Your task to perform on an android device: open app "AliExpress" Image 0: 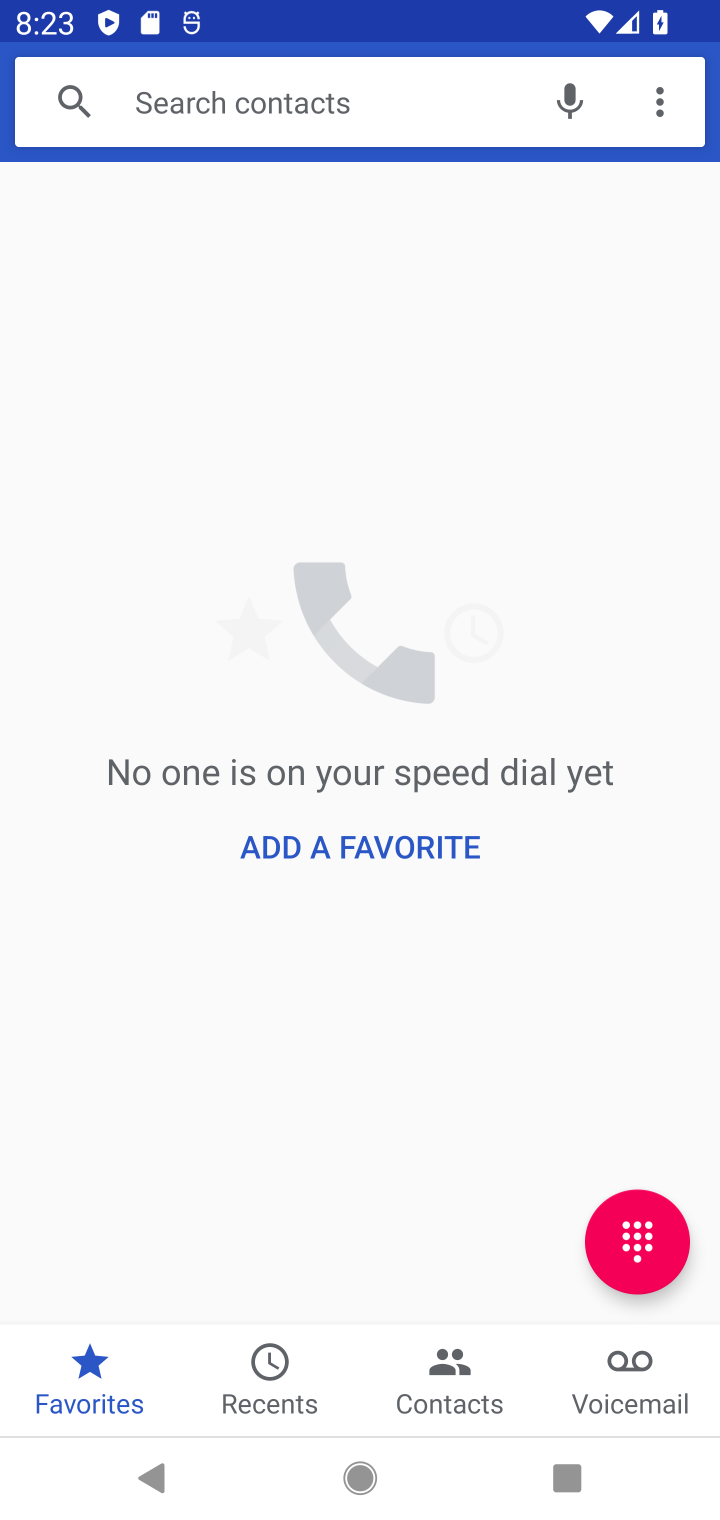
Step 0: press home button
Your task to perform on an android device: open app "AliExpress" Image 1: 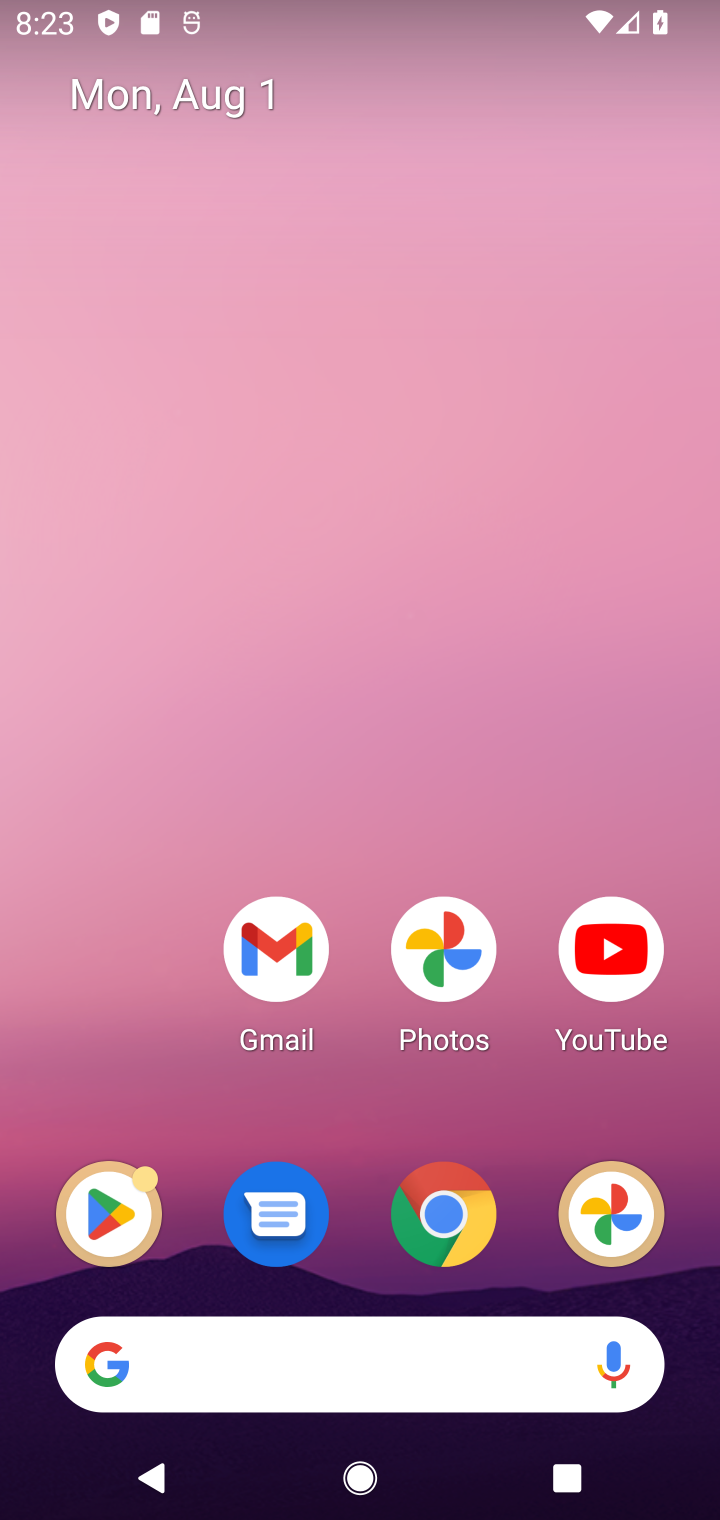
Step 1: click (95, 1203)
Your task to perform on an android device: open app "AliExpress" Image 2: 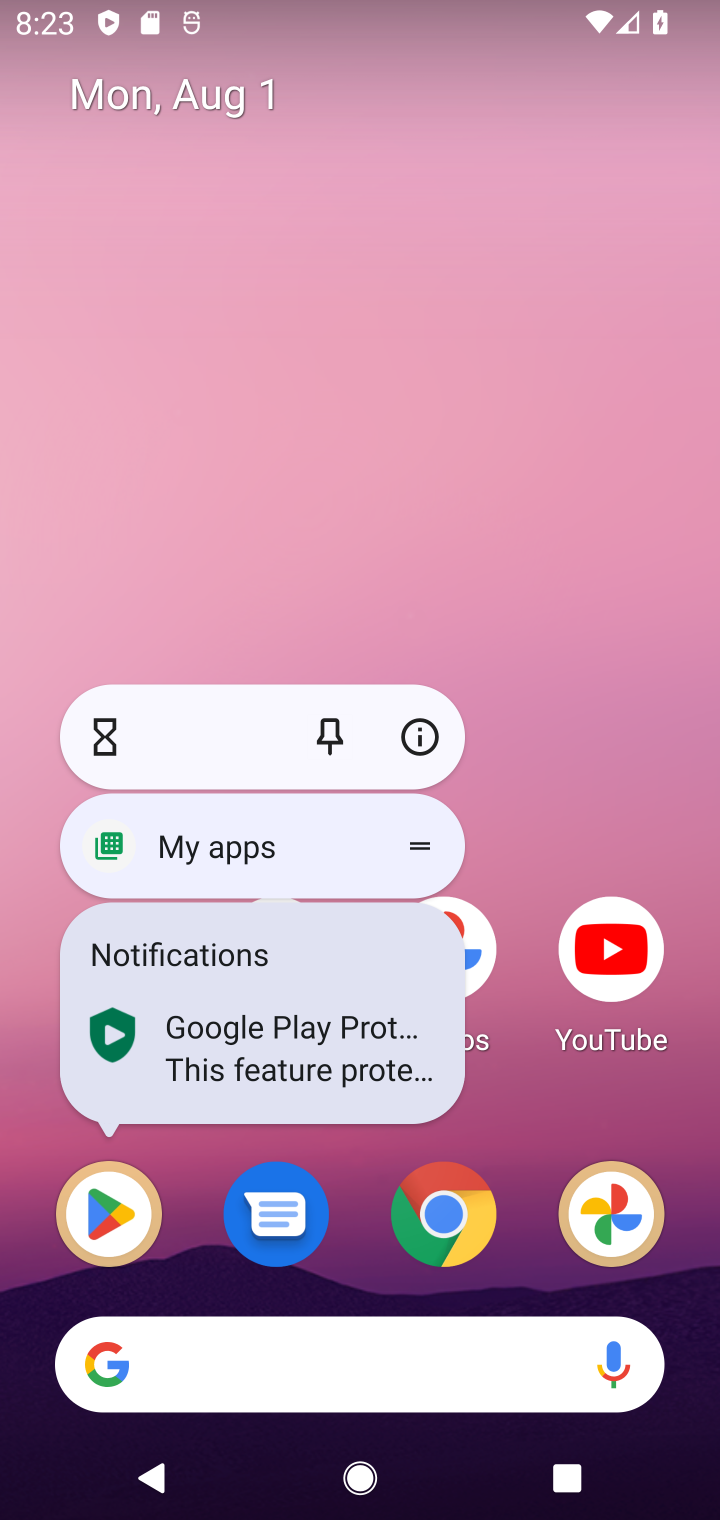
Step 2: click (116, 1220)
Your task to perform on an android device: open app "AliExpress" Image 3: 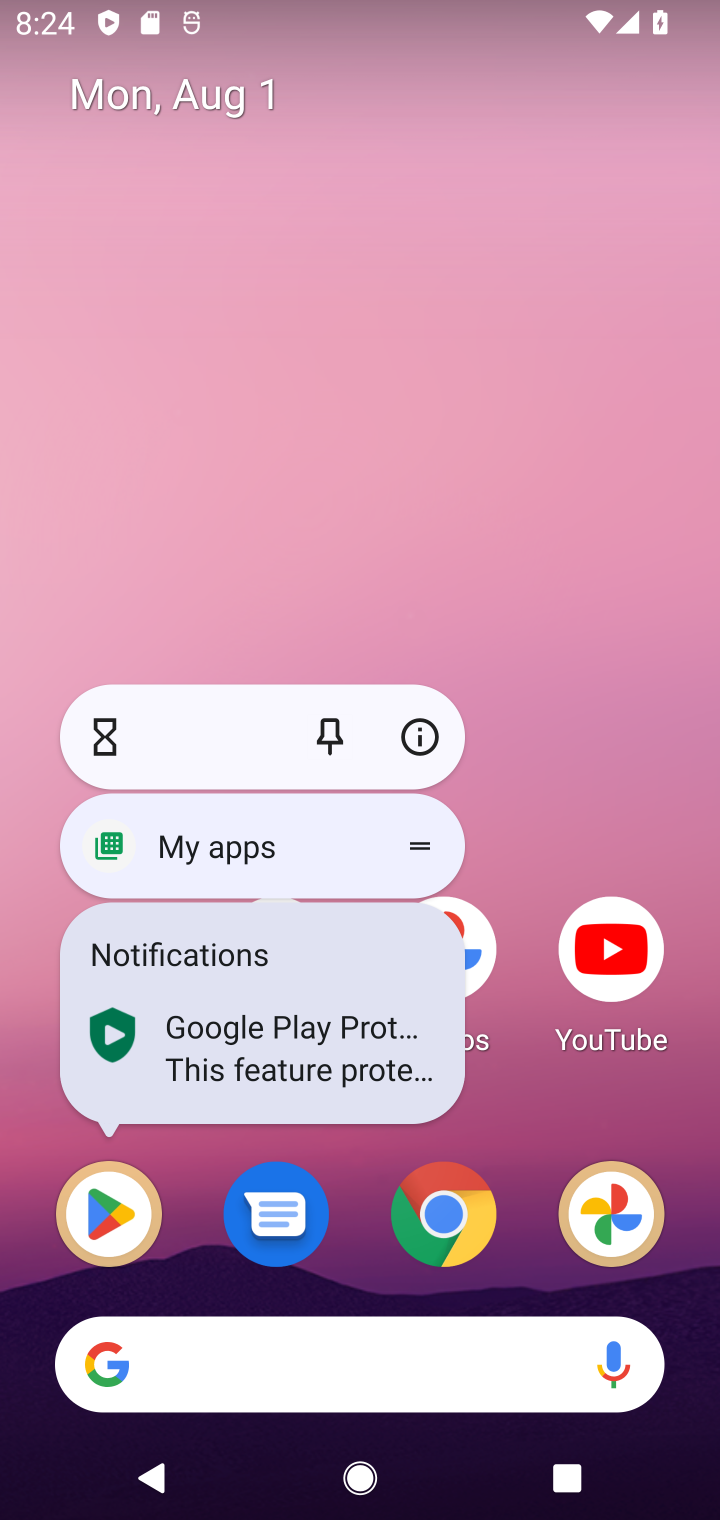
Step 3: click (94, 1231)
Your task to perform on an android device: open app "AliExpress" Image 4: 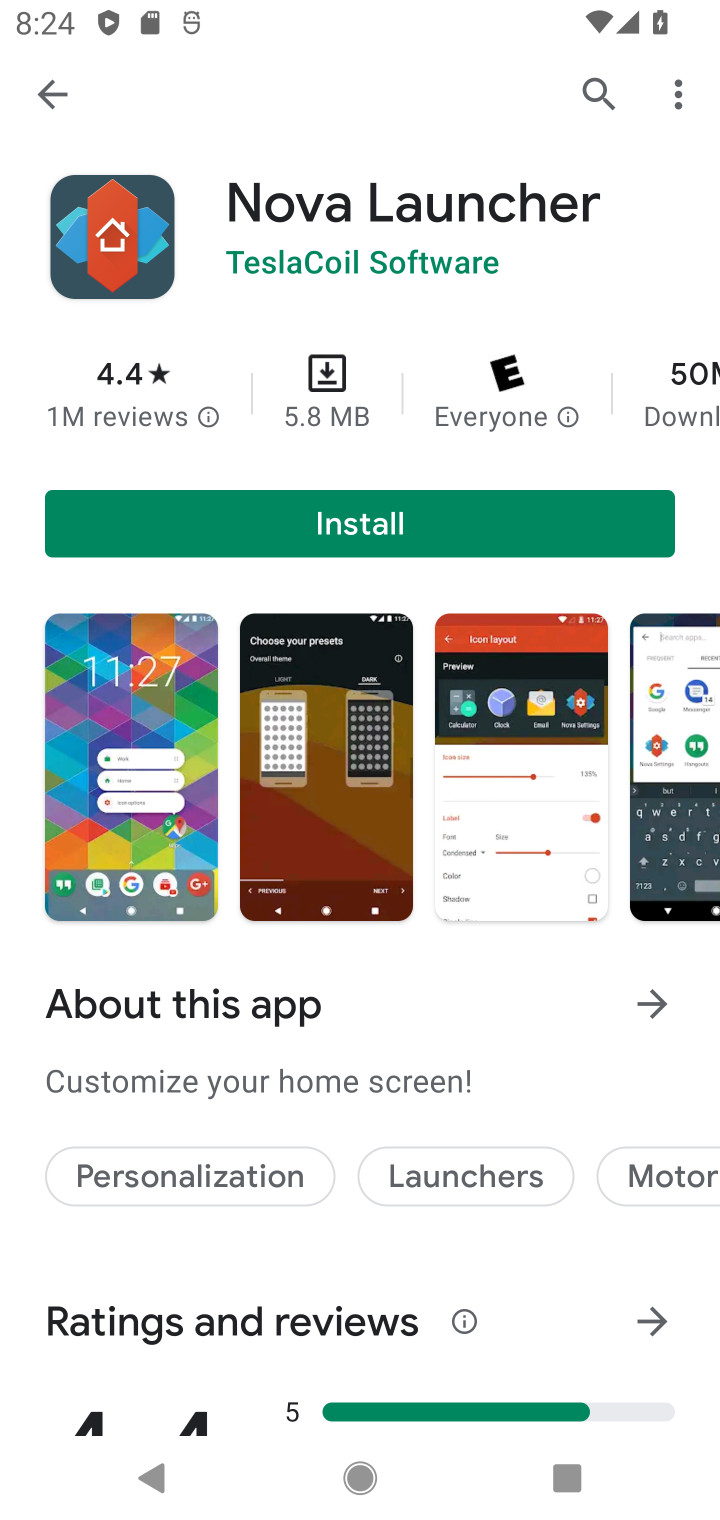
Step 4: click (587, 87)
Your task to perform on an android device: open app "AliExpress" Image 5: 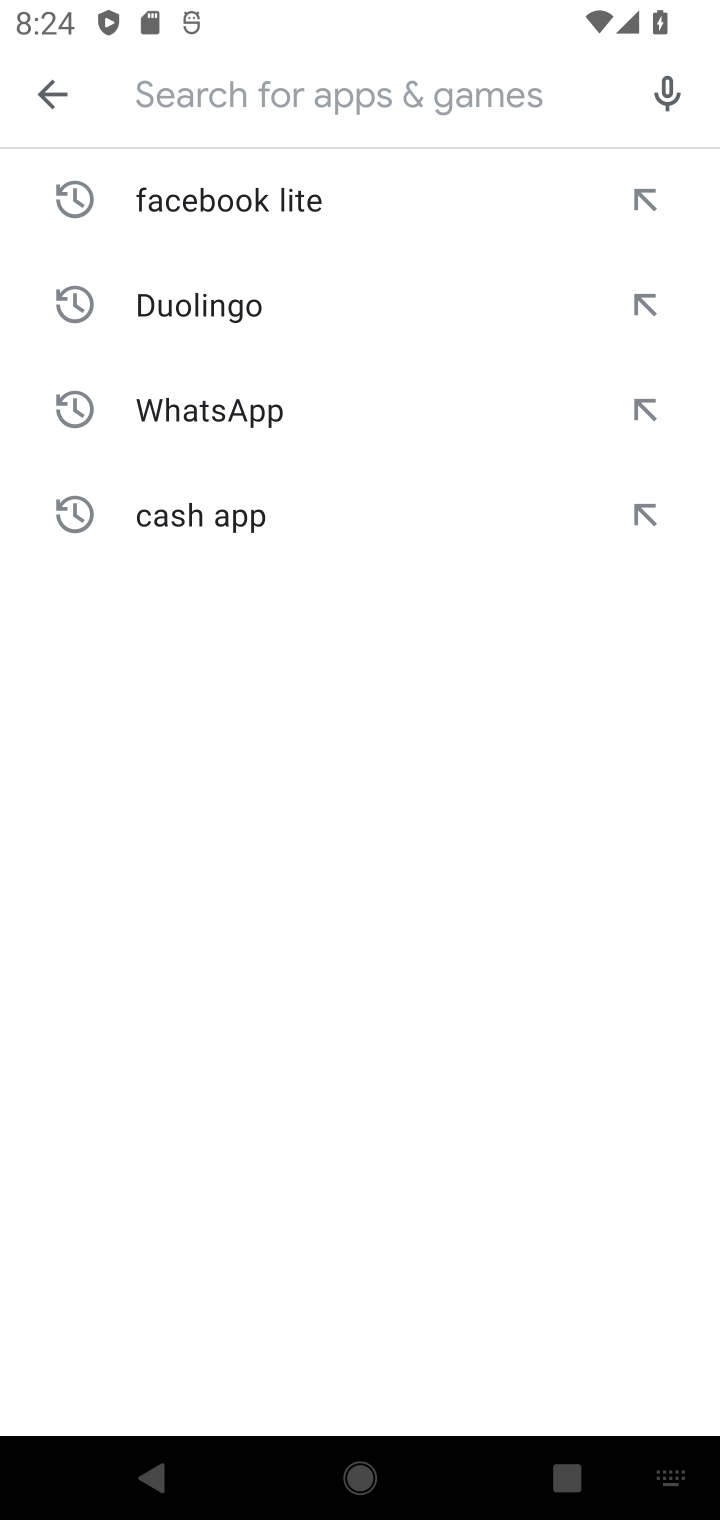
Step 5: type "aliexpress"
Your task to perform on an android device: open app "AliExpress" Image 6: 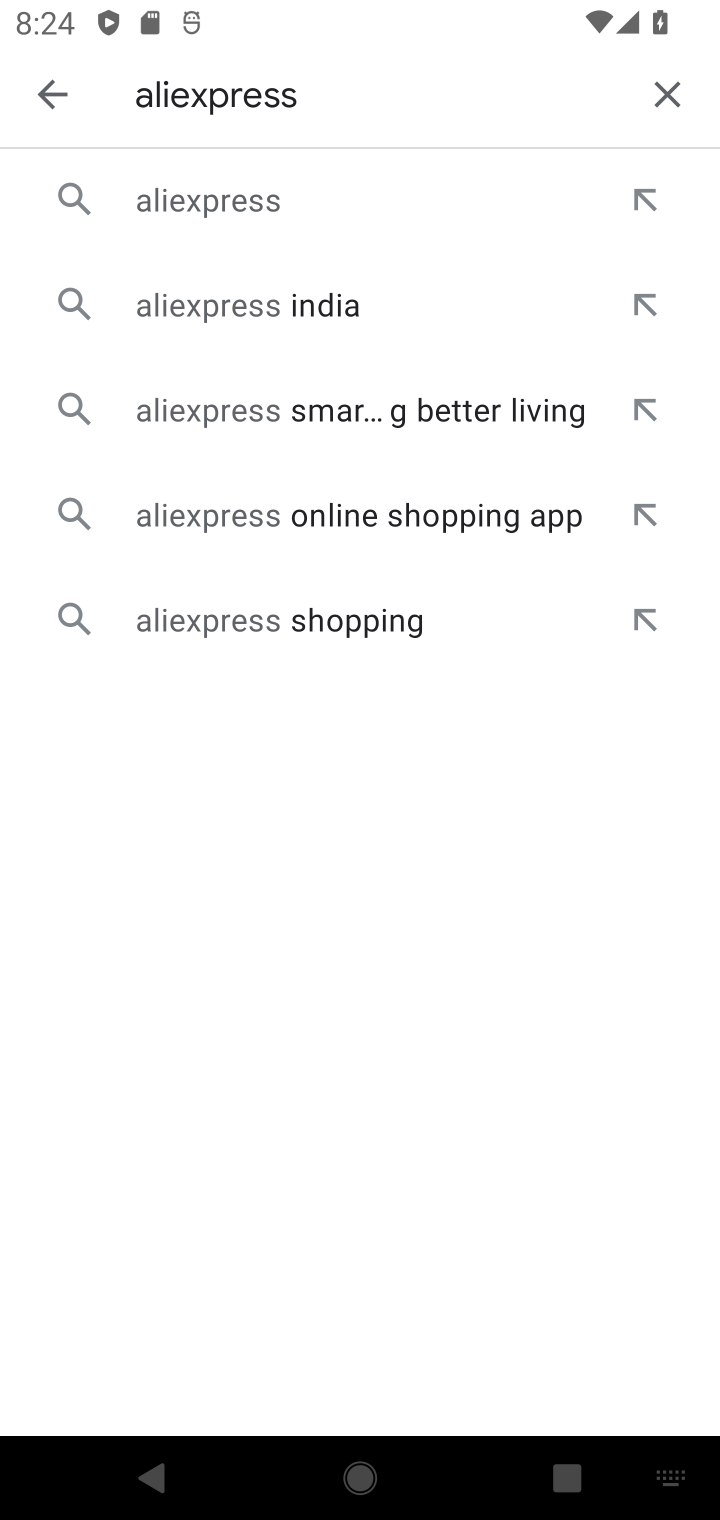
Step 6: click (258, 204)
Your task to perform on an android device: open app "AliExpress" Image 7: 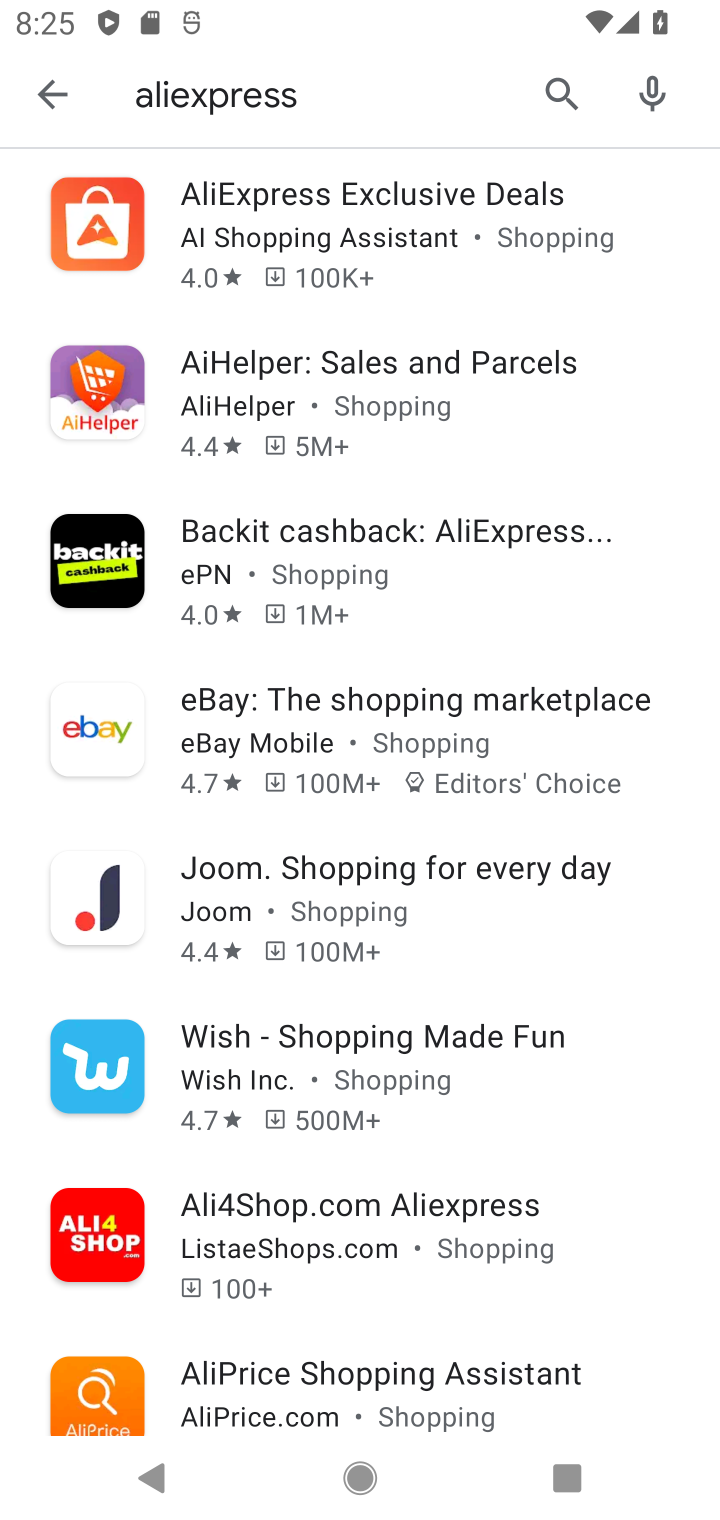
Step 7: task complete